Your task to perform on an android device: check storage Image 0: 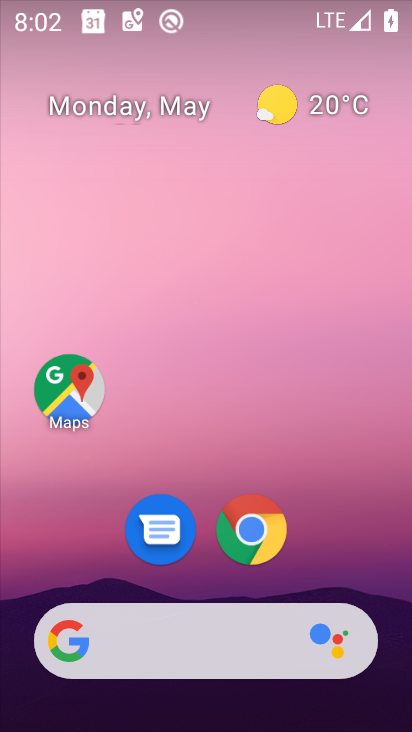
Step 0: press home button
Your task to perform on an android device: check storage Image 1: 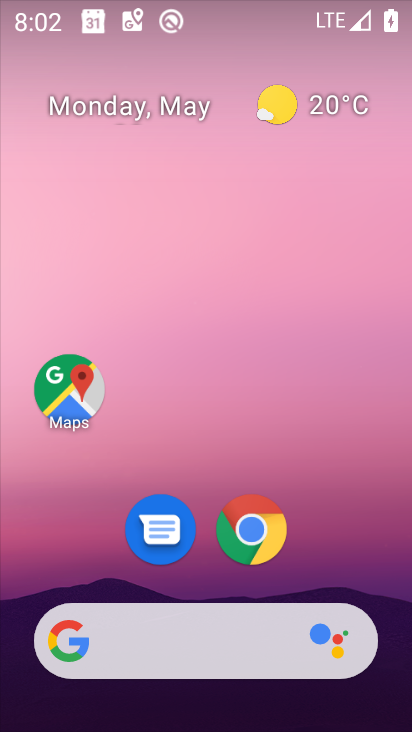
Step 1: task complete